Your task to perform on an android device: Open Wikipedia Image 0: 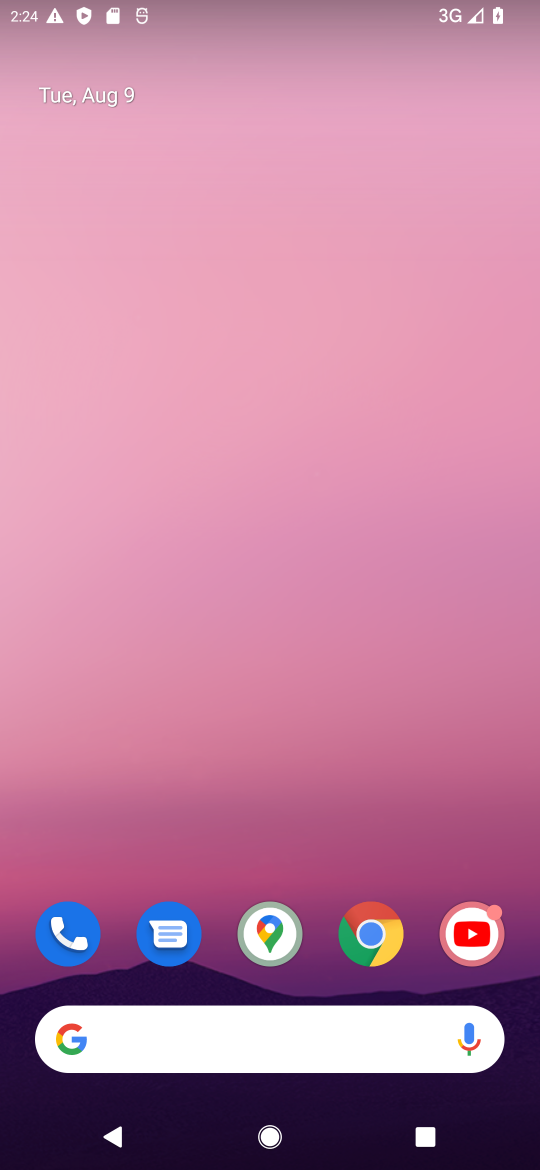
Step 0: drag from (314, 1005) to (314, 191)
Your task to perform on an android device: Open Wikipedia Image 1: 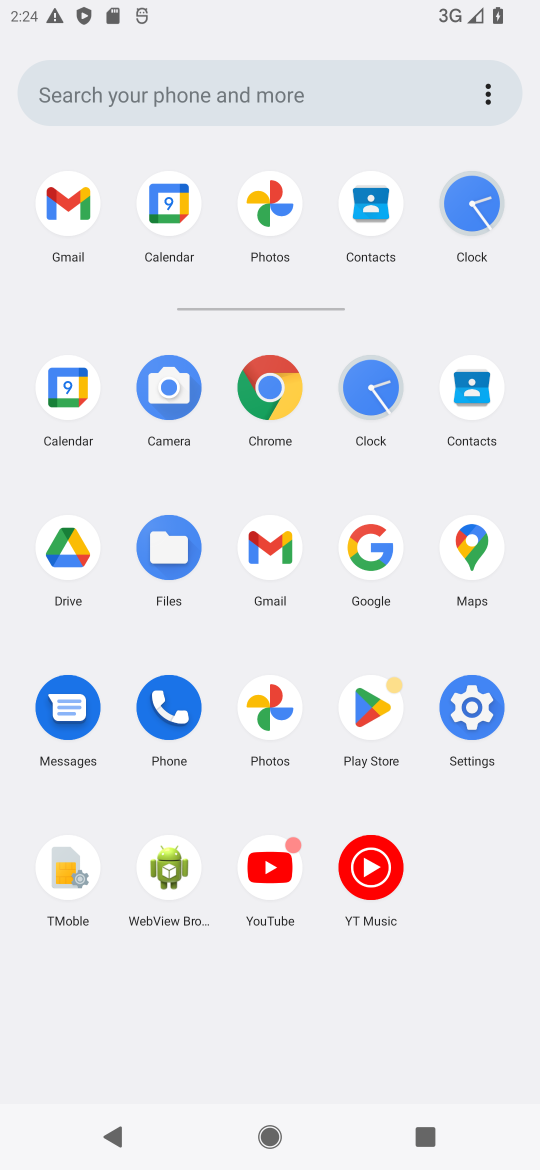
Step 1: click (474, 690)
Your task to perform on an android device: Open Wikipedia Image 2: 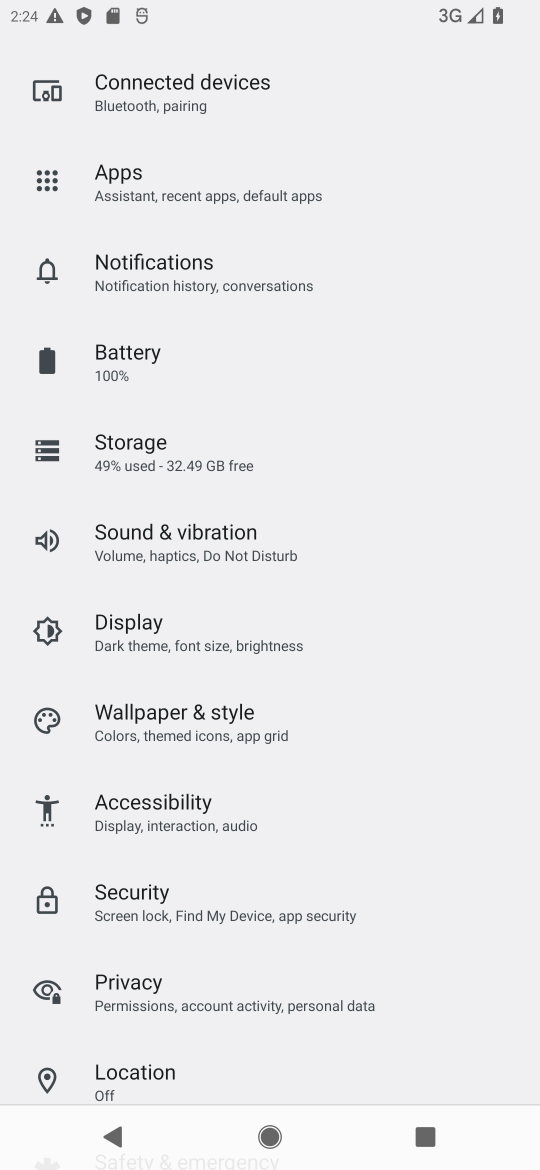
Step 2: press home button
Your task to perform on an android device: Open Wikipedia Image 3: 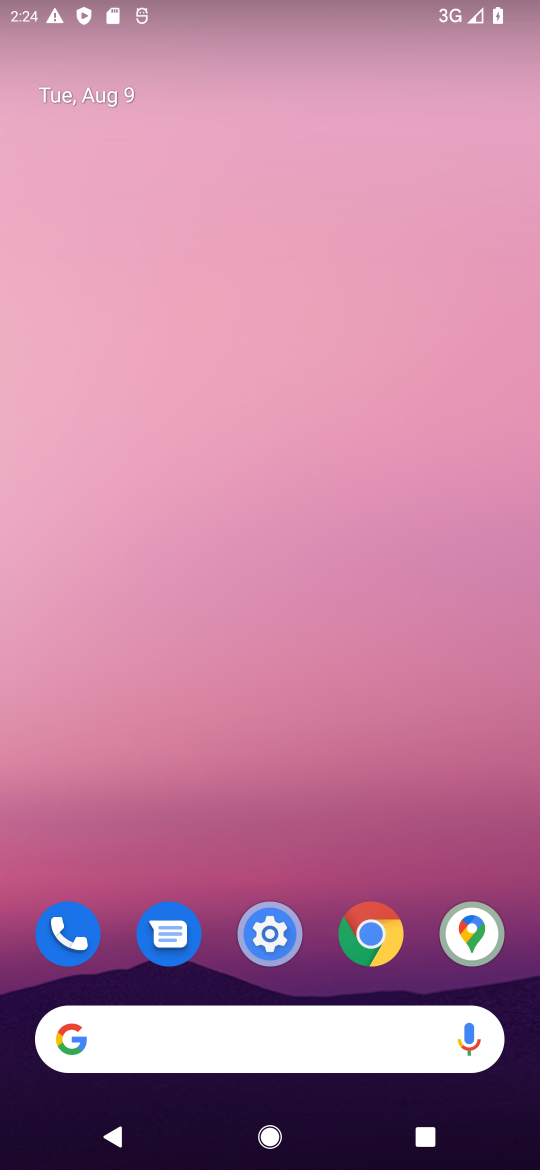
Step 3: click (375, 930)
Your task to perform on an android device: Open Wikipedia Image 4: 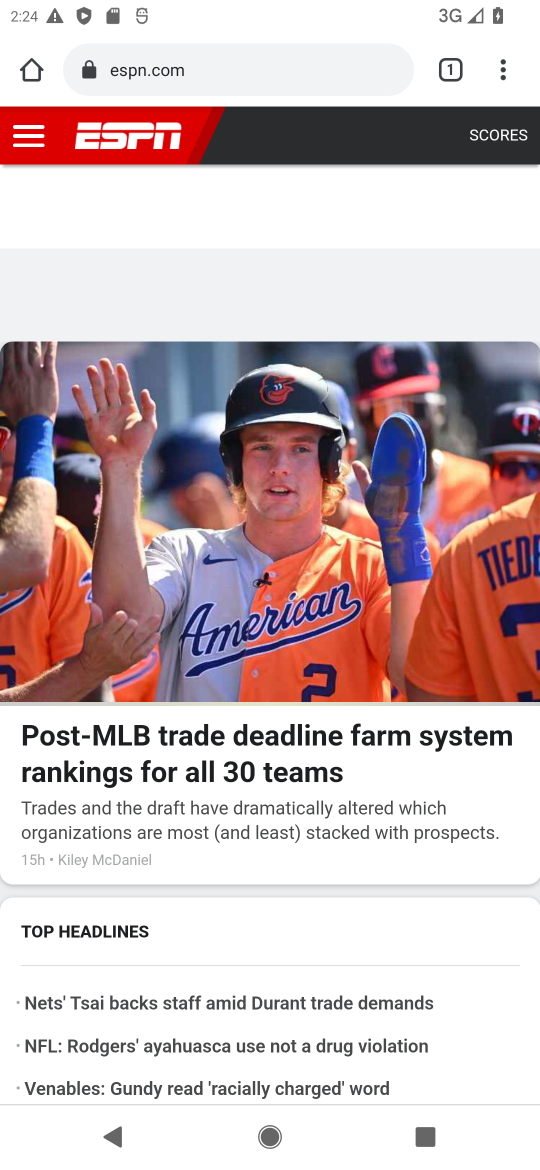
Step 4: click (181, 74)
Your task to perform on an android device: Open Wikipedia Image 5: 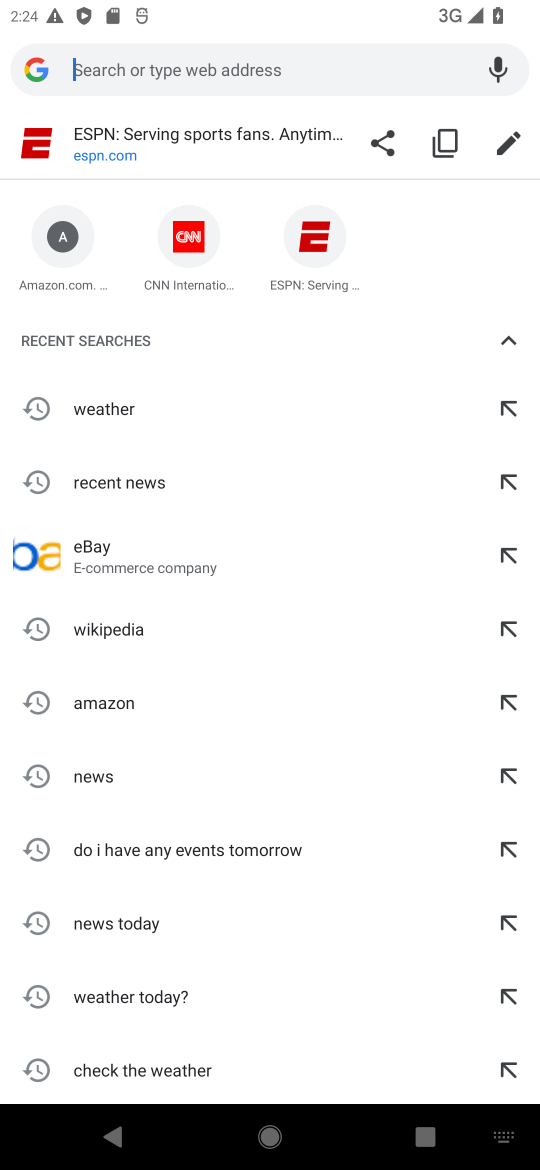
Step 5: type "wikipedia.com"
Your task to perform on an android device: Open Wikipedia Image 6: 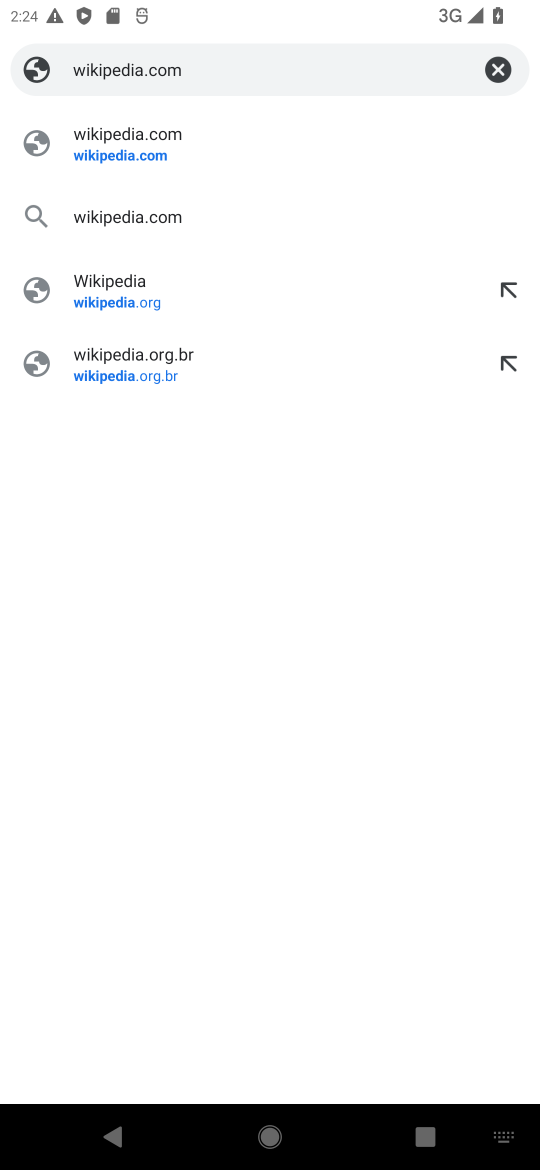
Step 6: click (164, 166)
Your task to perform on an android device: Open Wikipedia Image 7: 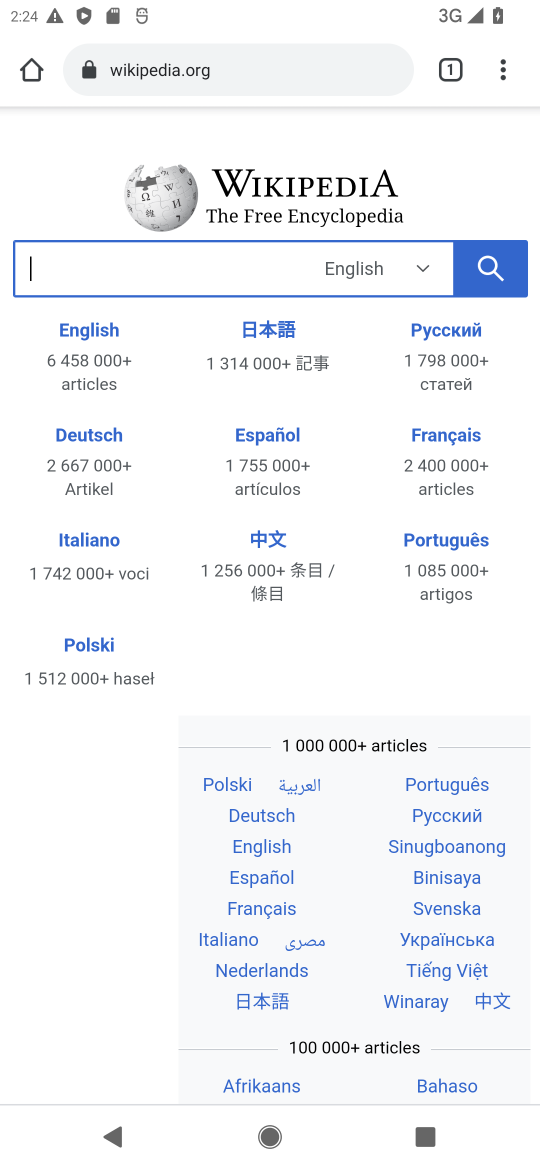
Step 7: task complete